Your task to perform on an android device: What is the news today? Image 0: 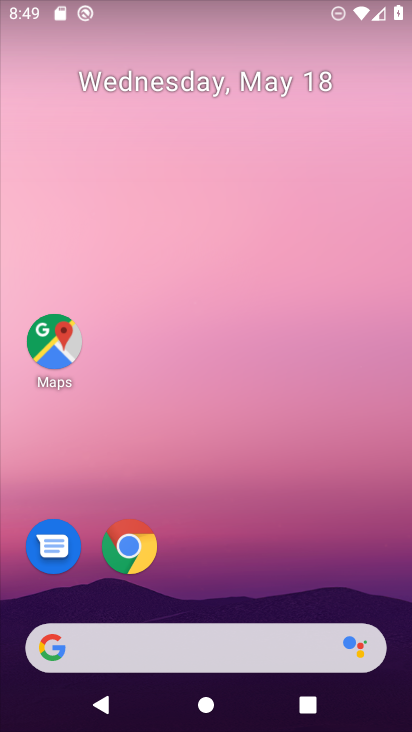
Step 0: drag from (251, 671) to (368, 357)
Your task to perform on an android device: What is the news today? Image 1: 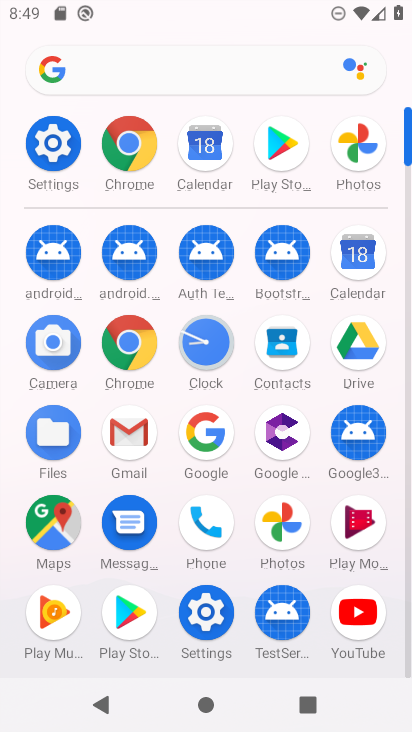
Step 1: click (177, 73)
Your task to perform on an android device: What is the news today? Image 2: 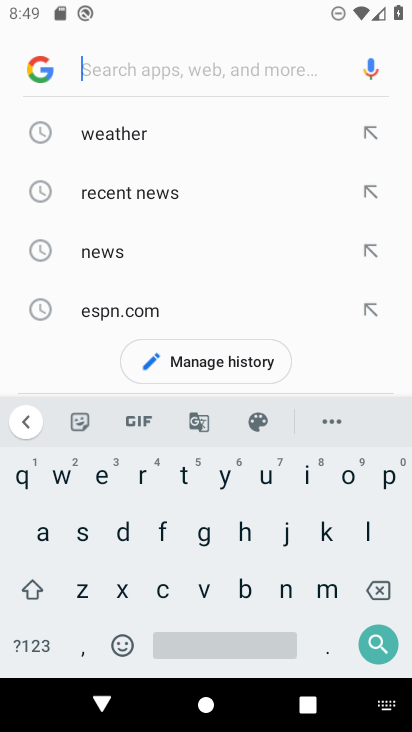
Step 2: click (119, 255)
Your task to perform on an android device: What is the news today? Image 3: 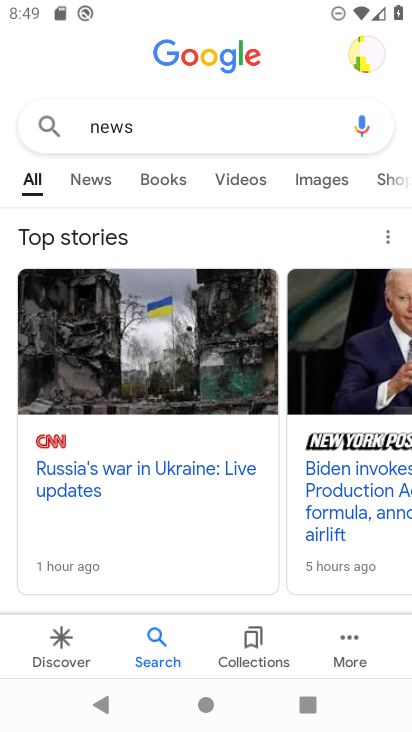
Step 3: task complete